Your task to perform on an android device: refresh tabs in the chrome app Image 0: 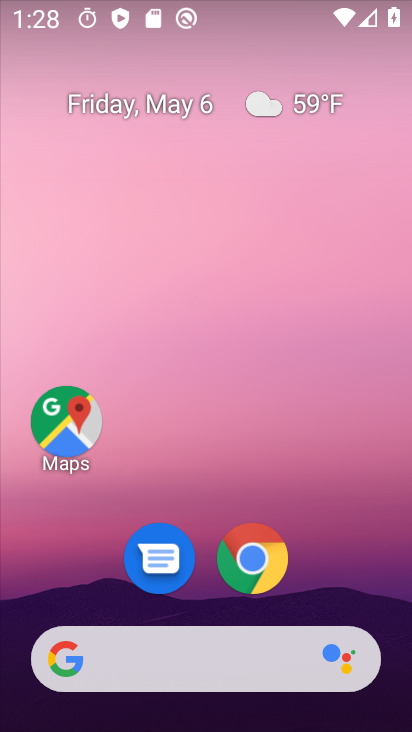
Step 0: click (305, 575)
Your task to perform on an android device: refresh tabs in the chrome app Image 1: 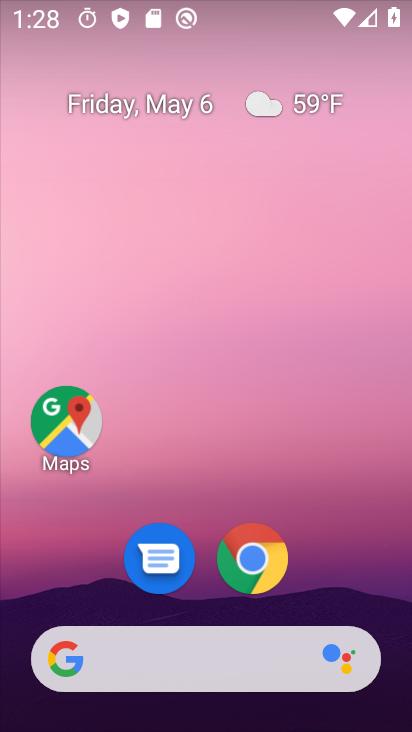
Step 1: click (252, 553)
Your task to perform on an android device: refresh tabs in the chrome app Image 2: 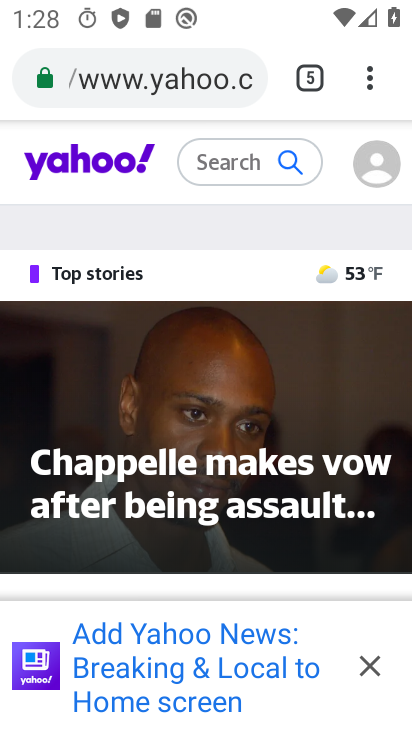
Step 2: click (370, 77)
Your task to perform on an android device: refresh tabs in the chrome app Image 3: 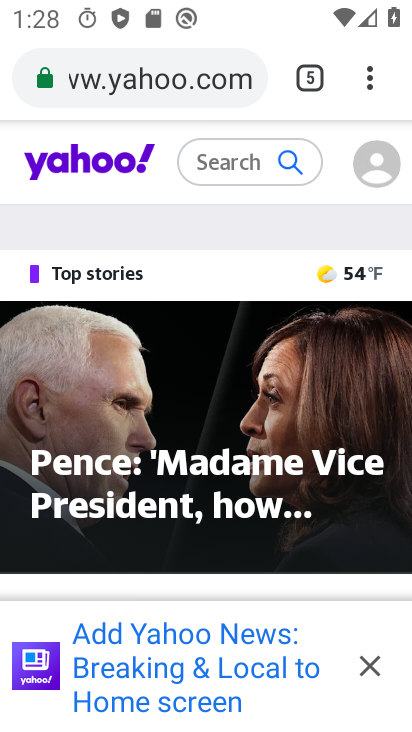
Step 3: task complete